Your task to perform on an android device: turn off smart reply in the gmail app Image 0: 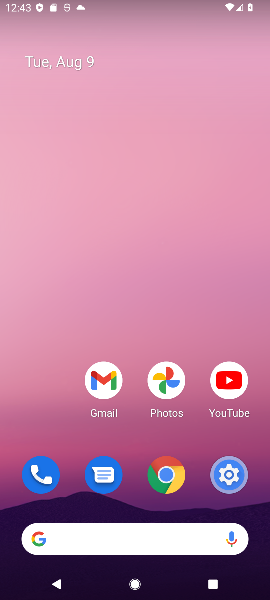
Step 0: click (101, 379)
Your task to perform on an android device: turn off smart reply in the gmail app Image 1: 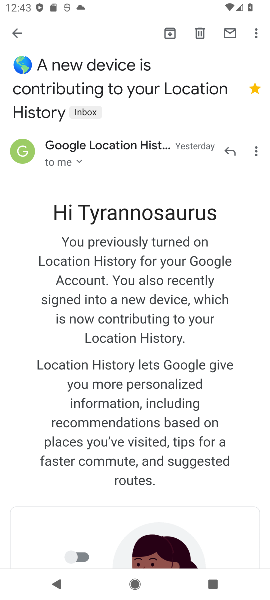
Step 1: click (13, 39)
Your task to perform on an android device: turn off smart reply in the gmail app Image 2: 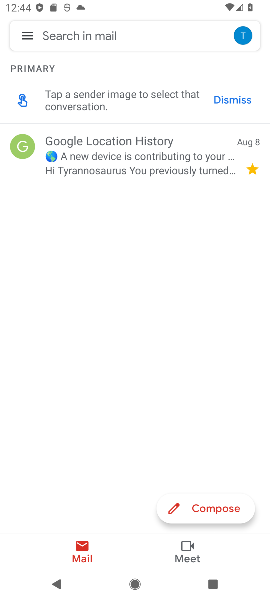
Step 2: click (26, 31)
Your task to perform on an android device: turn off smart reply in the gmail app Image 3: 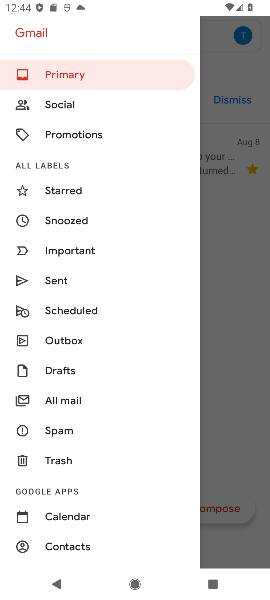
Step 3: drag from (95, 519) to (51, 212)
Your task to perform on an android device: turn off smart reply in the gmail app Image 4: 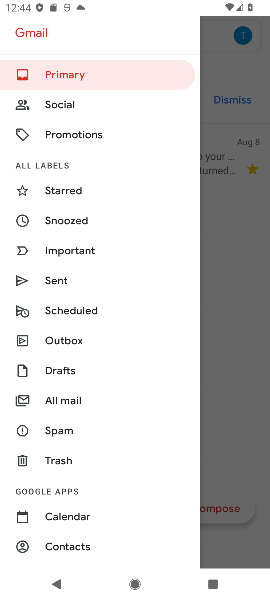
Step 4: drag from (47, 545) to (50, 231)
Your task to perform on an android device: turn off smart reply in the gmail app Image 5: 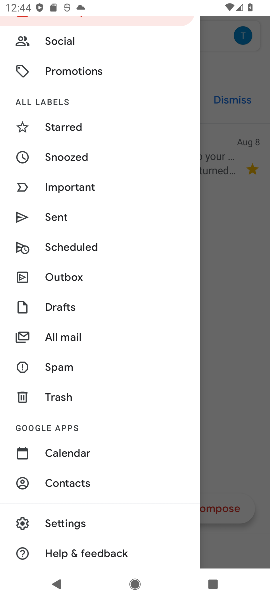
Step 5: click (50, 521)
Your task to perform on an android device: turn off smart reply in the gmail app Image 6: 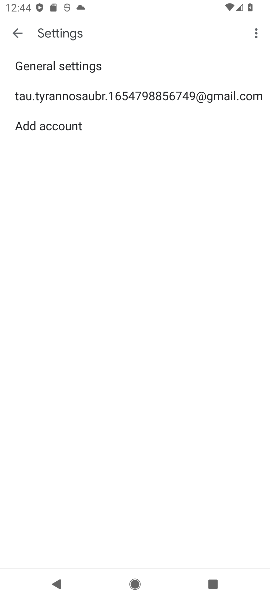
Step 6: click (123, 87)
Your task to perform on an android device: turn off smart reply in the gmail app Image 7: 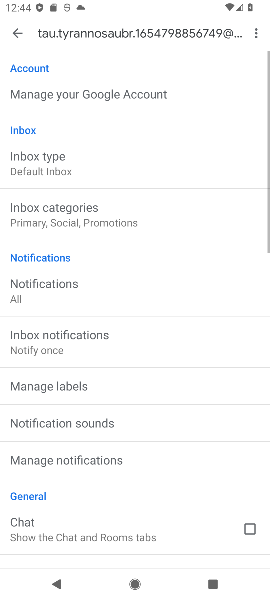
Step 7: drag from (64, 454) to (67, 143)
Your task to perform on an android device: turn off smart reply in the gmail app Image 8: 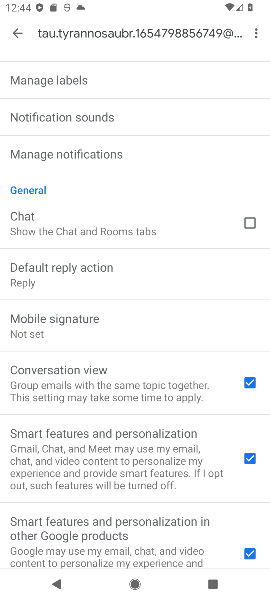
Step 8: drag from (162, 534) to (158, 422)
Your task to perform on an android device: turn off smart reply in the gmail app Image 9: 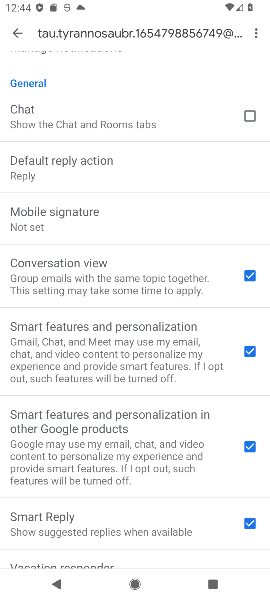
Step 9: click (239, 528)
Your task to perform on an android device: turn off smart reply in the gmail app Image 10: 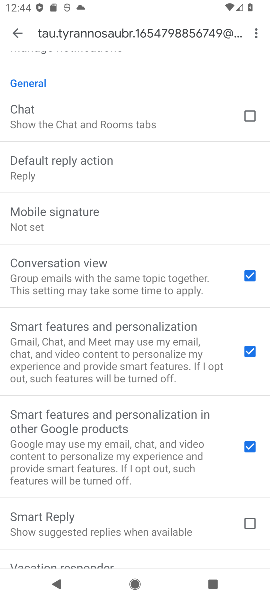
Step 10: task complete